Your task to perform on an android device: set an alarm Image 0: 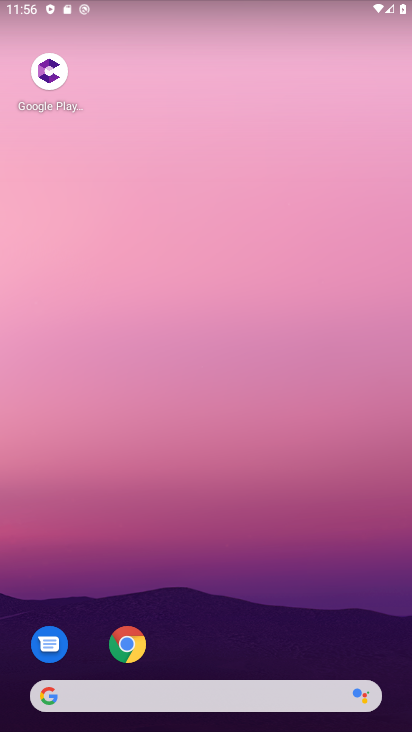
Step 0: drag from (223, 636) to (408, 415)
Your task to perform on an android device: set an alarm Image 1: 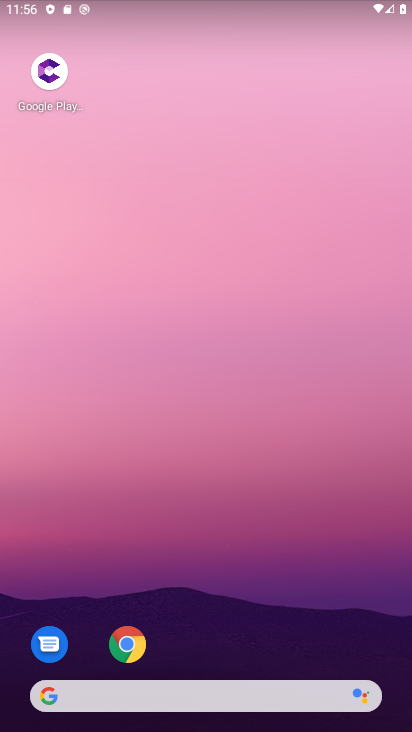
Step 1: drag from (189, 594) to (233, 9)
Your task to perform on an android device: set an alarm Image 2: 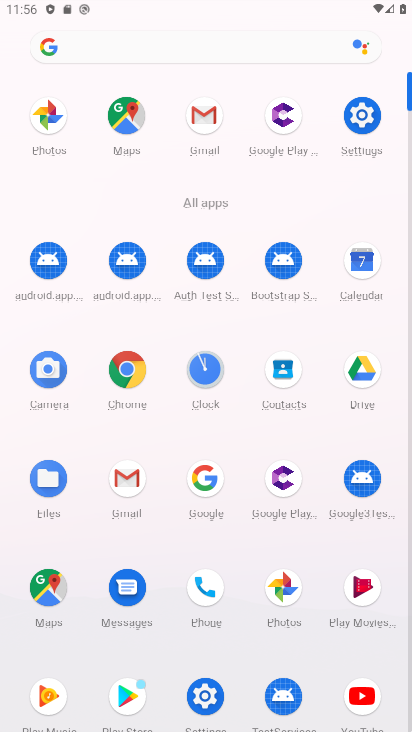
Step 2: click (209, 398)
Your task to perform on an android device: set an alarm Image 3: 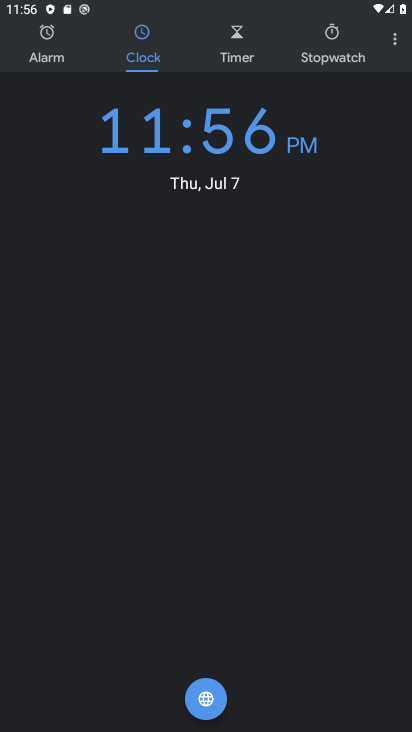
Step 3: click (57, 52)
Your task to perform on an android device: set an alarm Image 4: 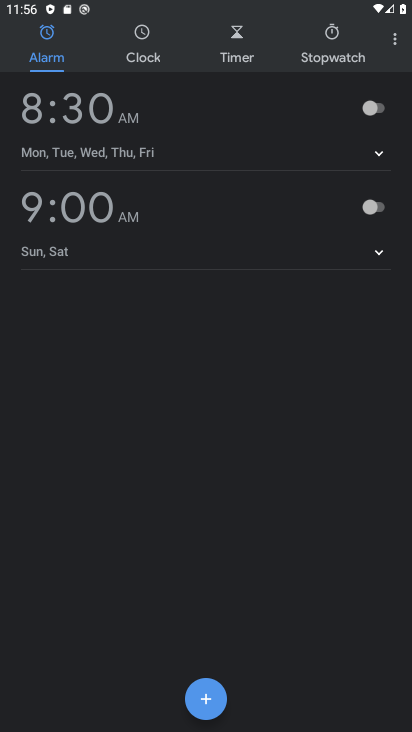
Step 4: click (384, 109)
Your task to perform on an android device: set an alarm Image 5: 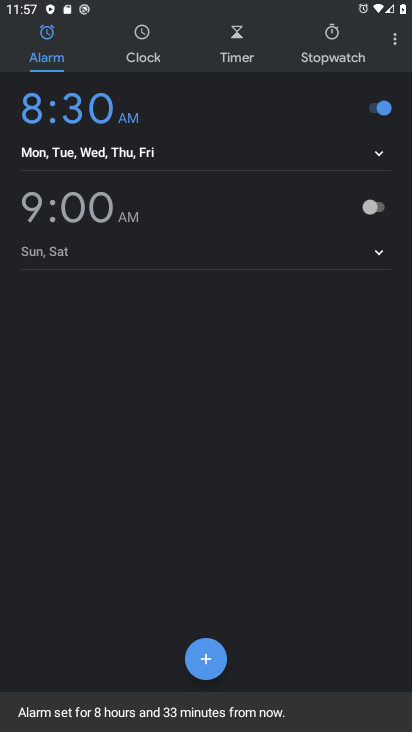
Step 5: task complete